Your task to perform on an android device: Open the phone app and click the voicemail tab. Image 0: 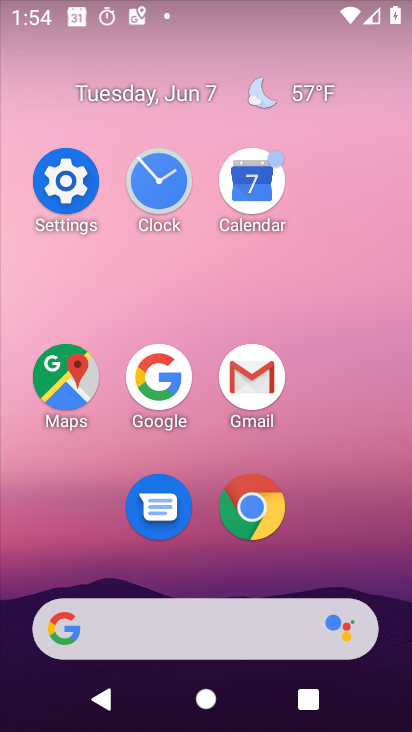
Step 0: drag from (316, 532) to (359, 117)
Your task to perform on an android device: Open the phone app and click the voicemail tab. Image 1: 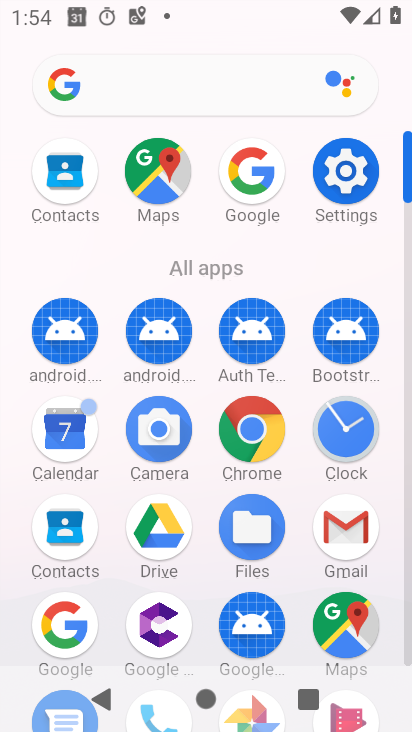
Step 1: drag from (248, 538) to (251, 296)
Your task to perform on an android device: Open the phone app and click the voicemail tab. Image 2: 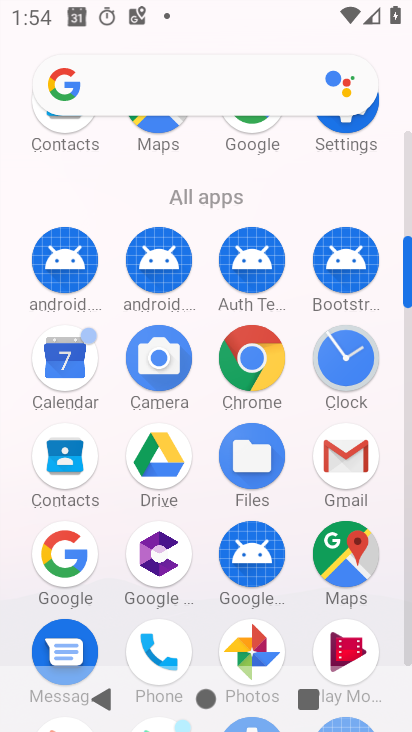
Step 2: click (167, 655)
Your task to perform on an android device: Open the phone app and click the voicemail tab. Image 3: 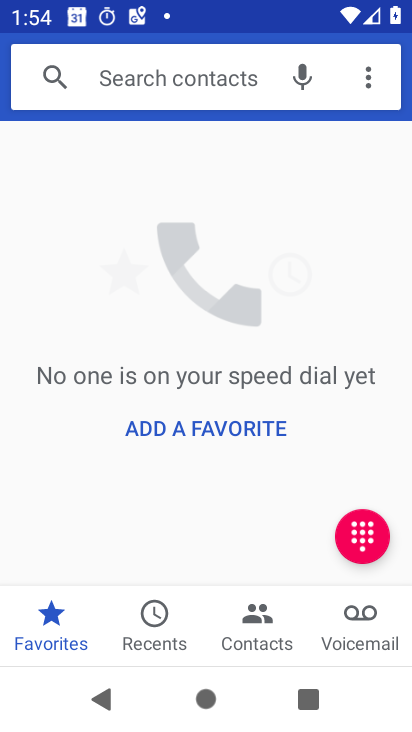
Step 3: click (333, 617)
Your task to perform on an android device: Open the phone app and click the voicemail tab. Image 4: 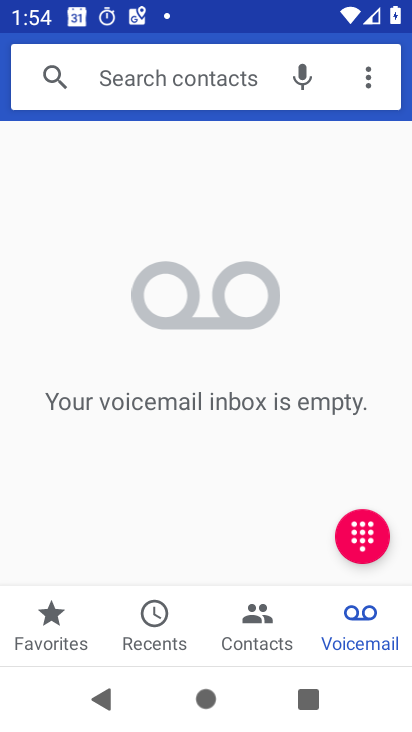
Step 4: task complete